Your task to perform on an android device: turn pop-ups on in chrome Image 0: 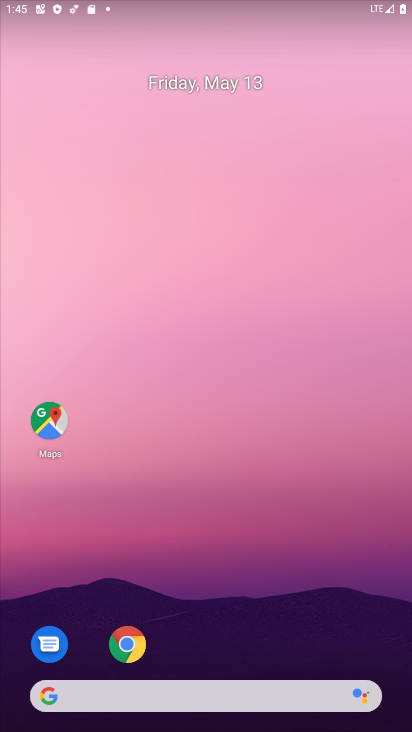
Step 0: drag from (350, 655) to (308, 35)
Your task to perform on an android device: turn pop-ups on in chrome Image 1: 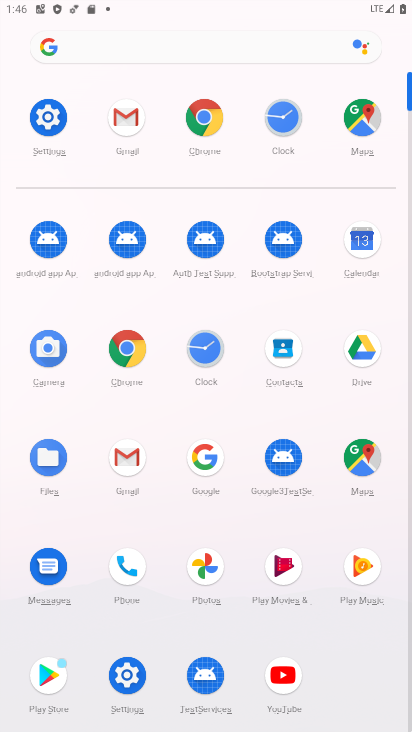
Step 1: click (143, 360)
Your task to perform on an android device: turn pop-ups on in chrome Image 2: 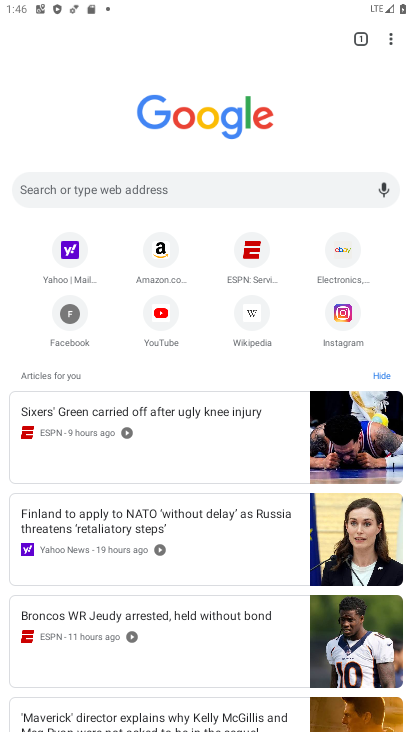
Step 2: click (392, 38)
Your task to perform on an android device: turn pop-ups on in chrome Image 3: 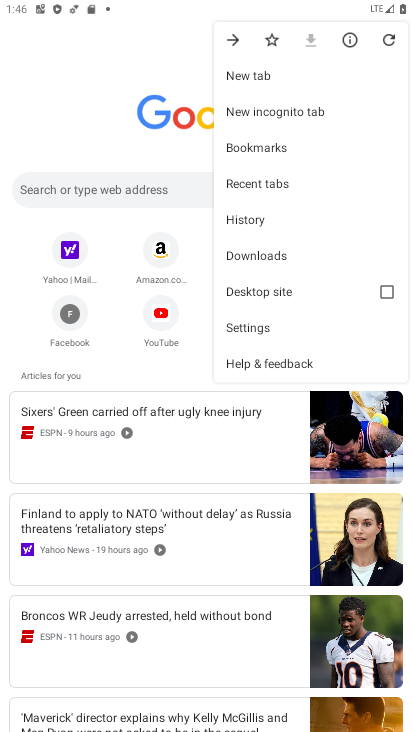
Step 3: click (264, 329)
Your task to perform on an android device: turn pop-ups on in chrome Image 4: 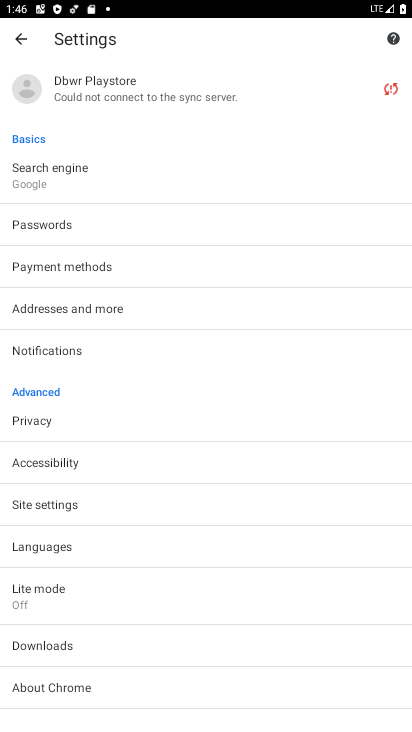
Step 4: click (168, 515)
Your task to perform on an android device: turn pop-ups on in chrome Image 5: 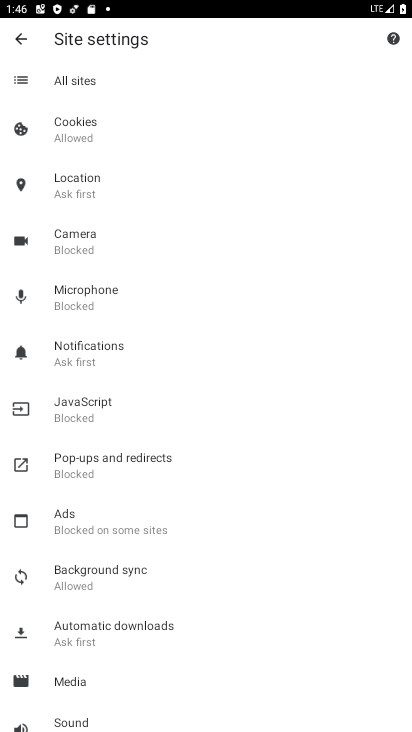
Step 5: click (137, 465)
Your task to perform on an android device: turn pop-ups on in chrome Image 6: 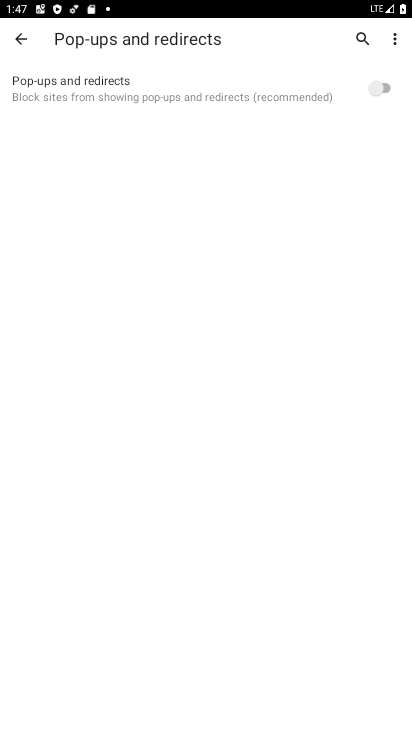
Step 6: click (365, 84)
Your task to perform on an android device: turn pop-ups on in chrome Image 7: 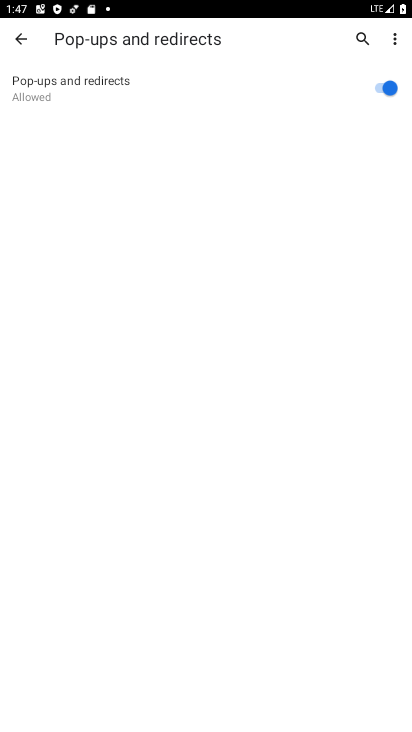
Step 7: task complete